Your task to perform on an android device: toggle notification dots Image 0: 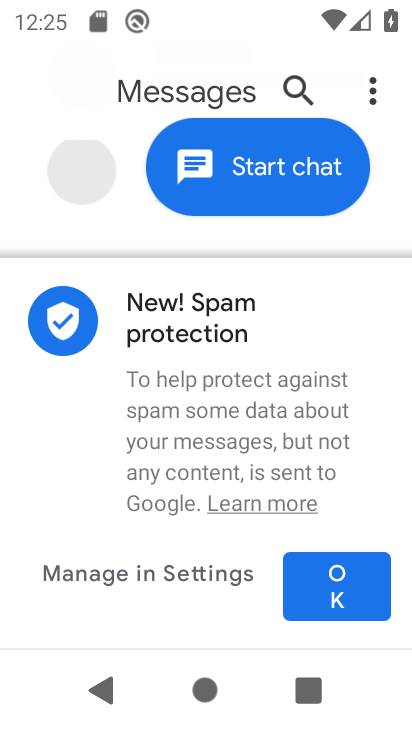
Step 0: press back button
Your task to perform on an android device: toggle notification dots Image 1: 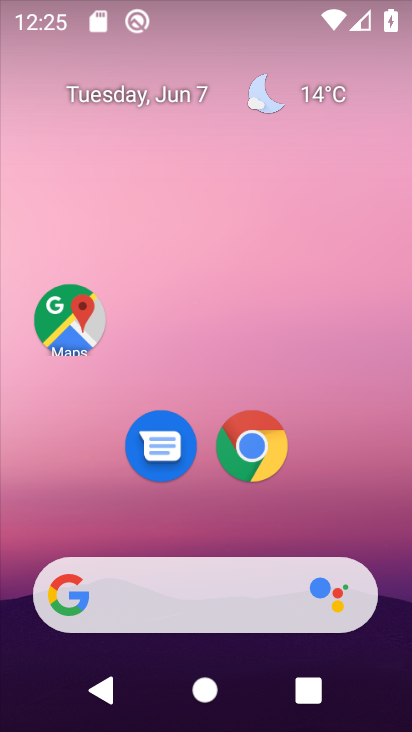
Step 1: drag from (182, 530) to (239, 51)
Your task to perform on an android device: toggle notification dots Image 2: 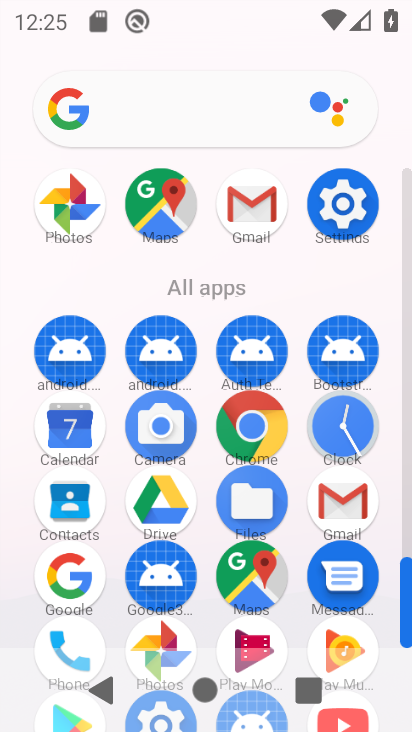
Step 2: click (337, 191)
Your task to perform on an android device: toggle notification dots Image 3: 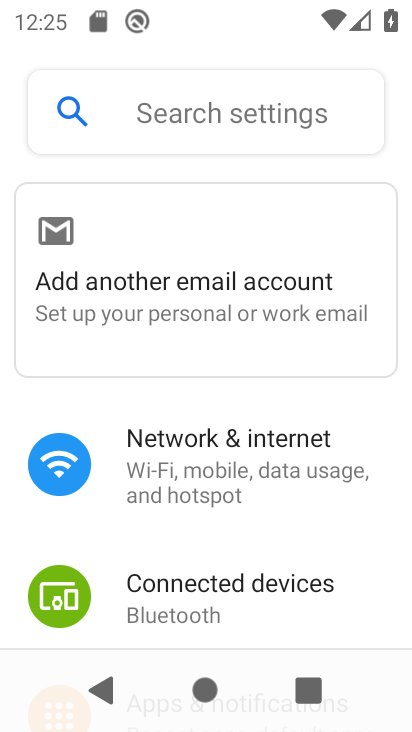
Step 3: drag from (268, 544) to (328, 152)
Your task to perform on an android device: toggle notification dots Image 4: 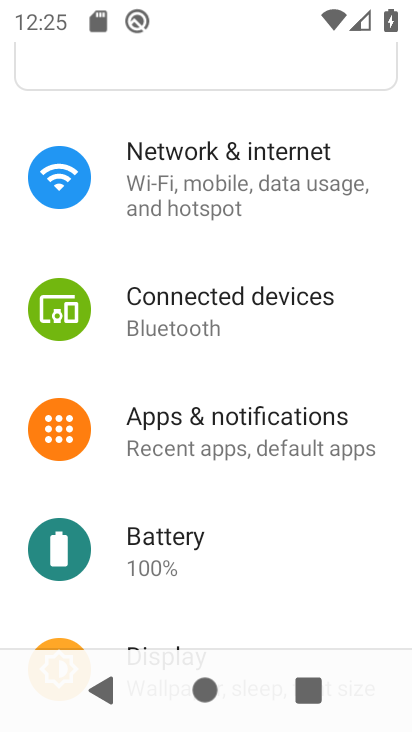
Step 4: click (195, 429)
Your task to perform on an android device: toggle notification dots Image 5: 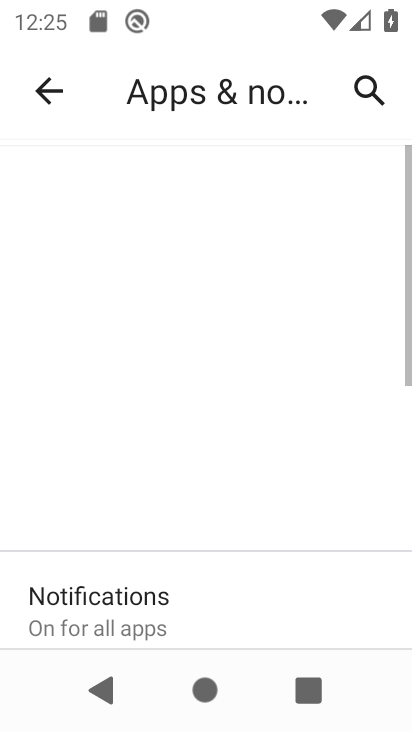
Step 5: click (131, 619)
Your task to perform on an android device: toggle notification dots Image 6: 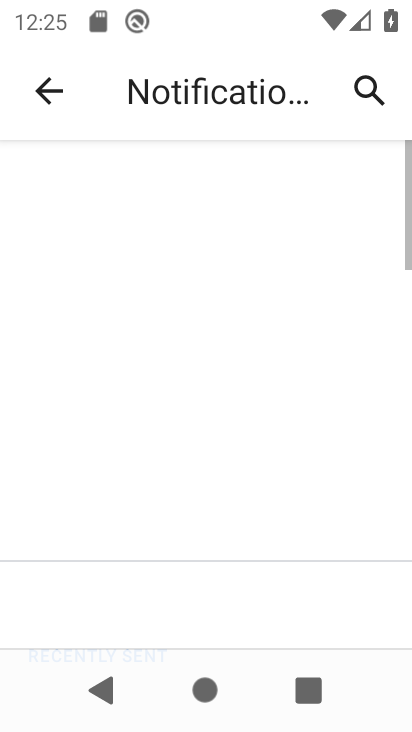
Step 6: drag from (167, 572) to (269, 70)
Your task to perform on an android device: toggle notification dots Image 7: 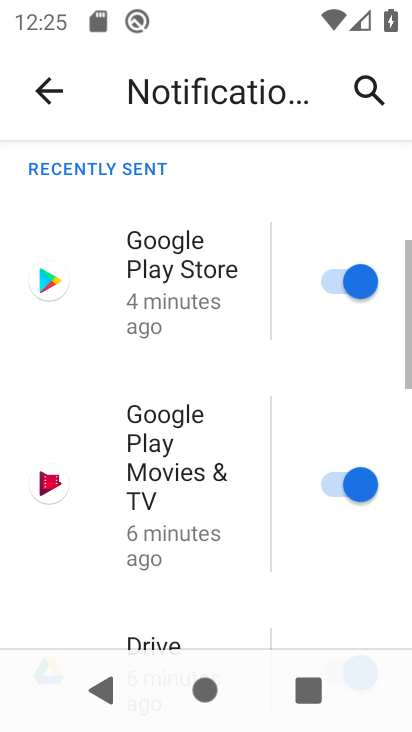
Step 7: drag from (177, 561) to (268, 83)
Your task to perform on an android device: toggle notification dots Image 8: 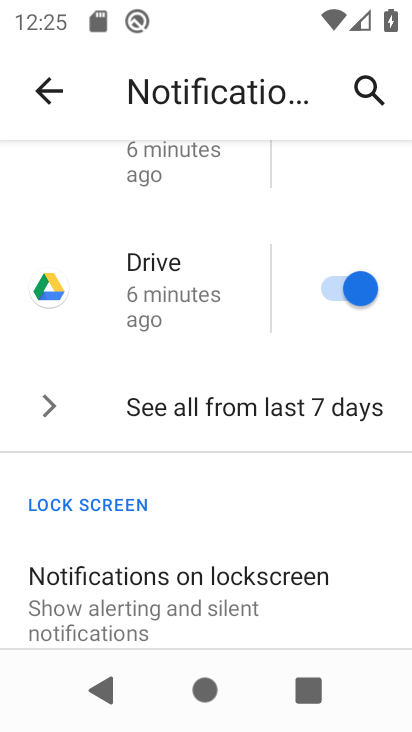
Step 8: drag from (196, 532) to (267, 67)
Your task to perform on an android device: toggle notification dots Image 9: 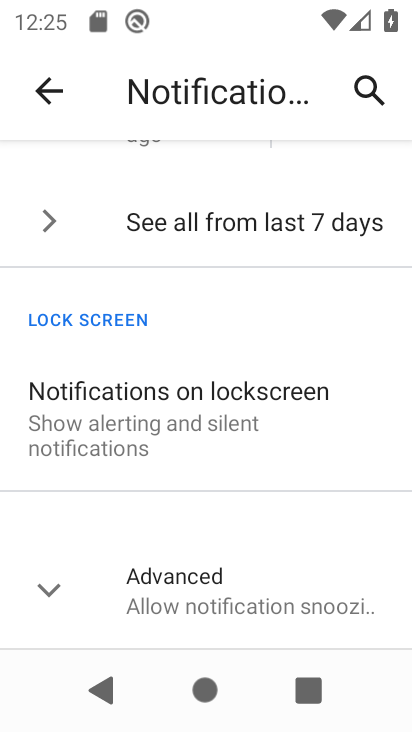
Step 9: click (190, 598)
Your task to perform on an android device: toggle notification dots Image 10: 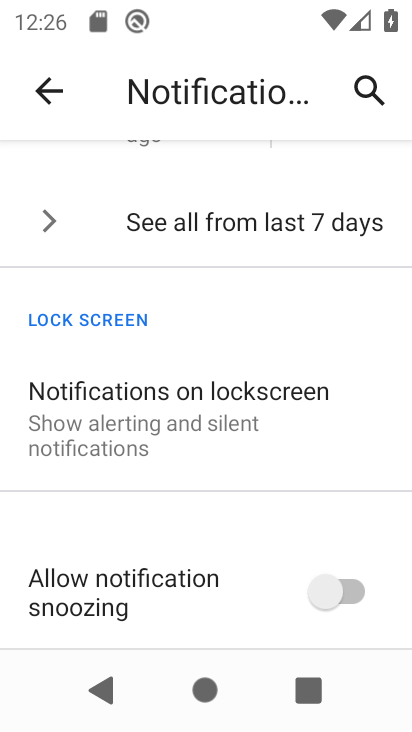
Step 10: drag from (206, 593) to (272, 148)
Your task to perform on an android device: toggle notification dots Image 11: 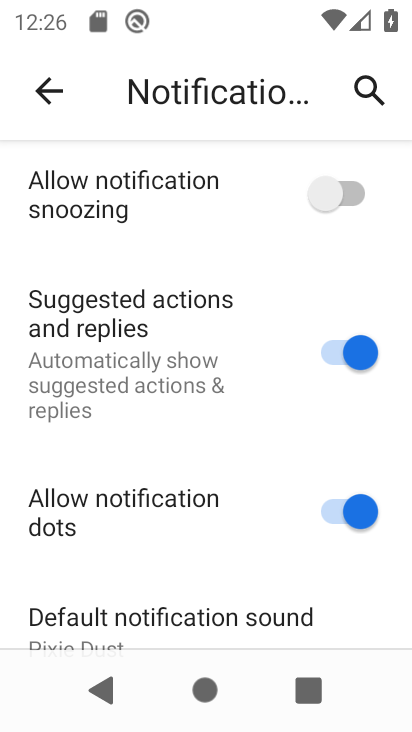
Step 11: click (356, 510)
Your task to perform on an android device: toggle notification dots Image 12: 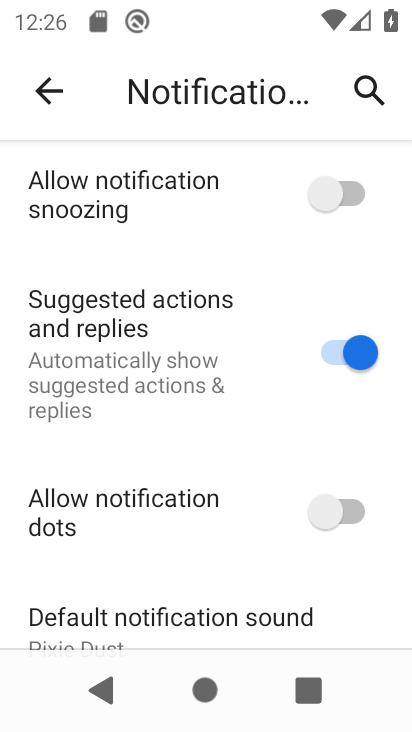
Step 12: drag from (175, 569) to (213, 176)
Your task to perform on an android device: toggle notification dots Image 13: 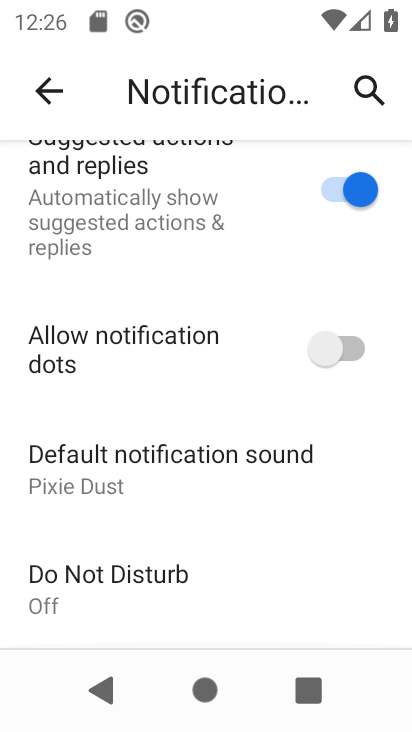
Step 13: click (331, 353)
Your task to perform on an android device: toggle notification dots Image 14: 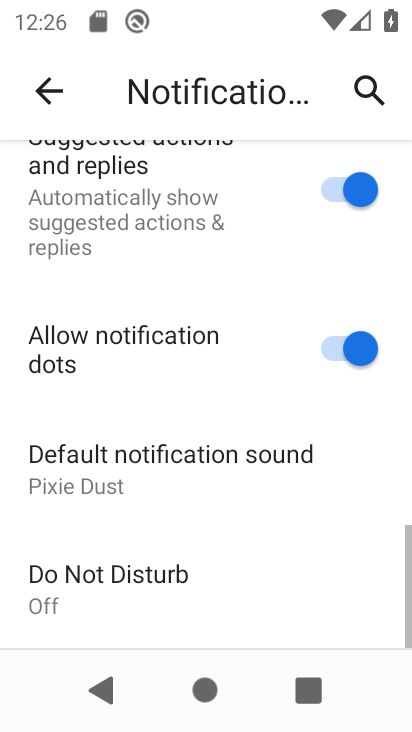
Step 14: task complete